Your task to perform on an android device: find snoozed emails in the gmail app Image 0: 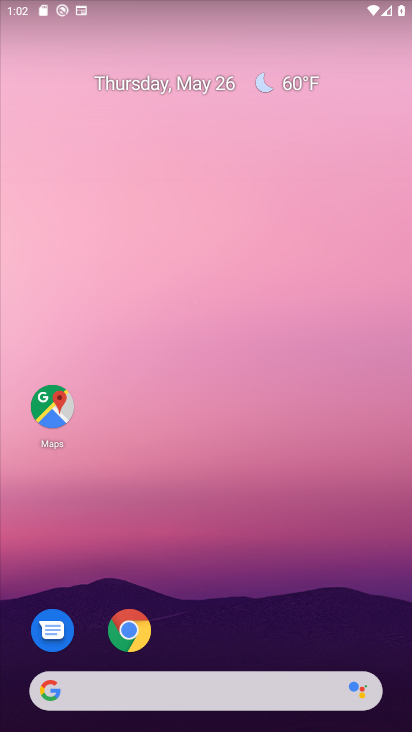
Step 0: drag from (329, 583) to (304, 118)
Your task to perform on an android device: find snoozed emails in the gmail app Image 1: 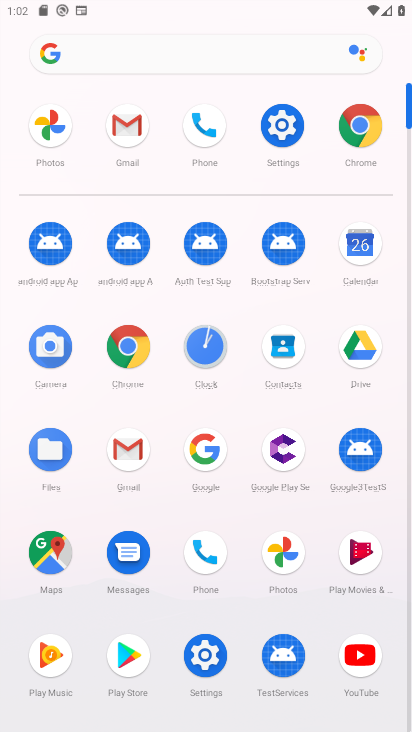
Step 1: click (141, 126)
Your task to perform on an android device: find snoozed emails in the gmail app Image 2: 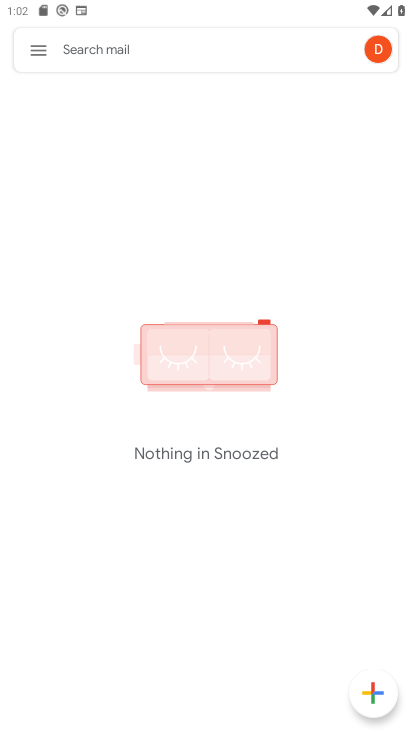
Step 2: click (36, 52)
Your task to perform on an android device: find snoozed emails in the gmail app Image 3: 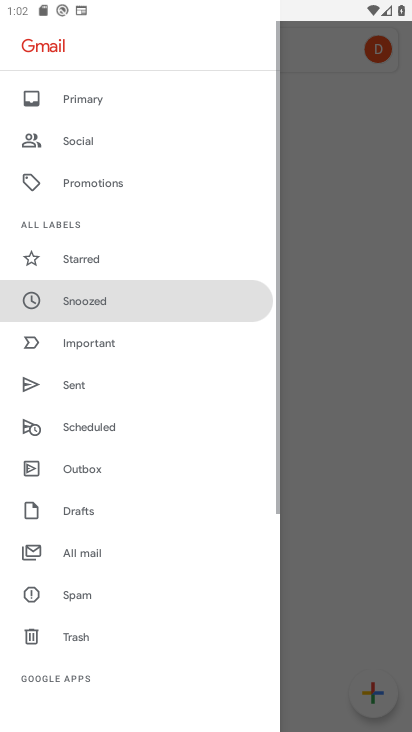
Step 3: click (336, 257)
Your task to perform on an android device: find snoozed emails in the gmail app Image 4: 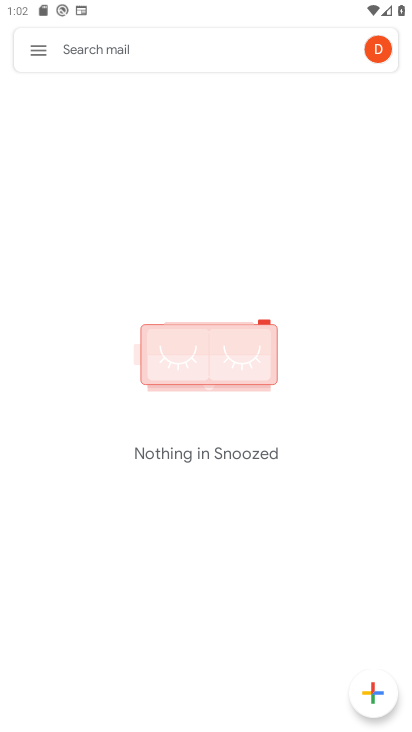
Step 4: task complete